Your task to perform on an android device: toggle translation in the chrome app Image 0: 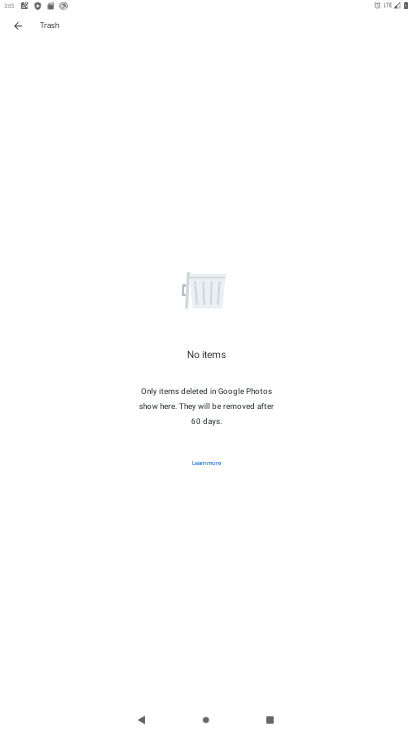
Step 0: drag from (192, 593) to (249, 145)
Your task to perform on an android device: toggle translation in the chrome app Image 1: 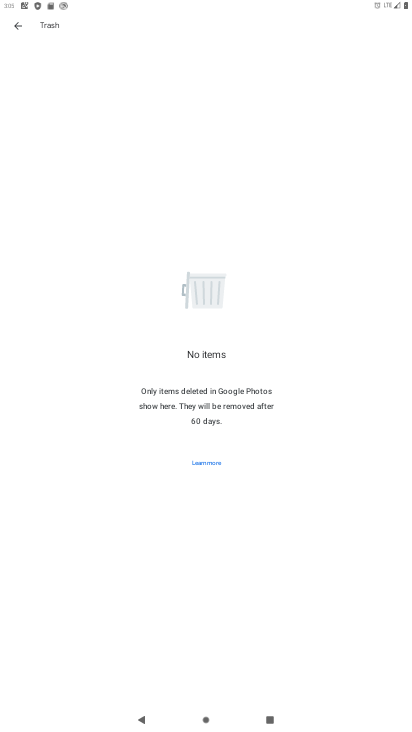
Step 1: drag from (125, 592) to (193, 281)
Your task to perform on an android device: toggle translation in the chrome app Image 2: 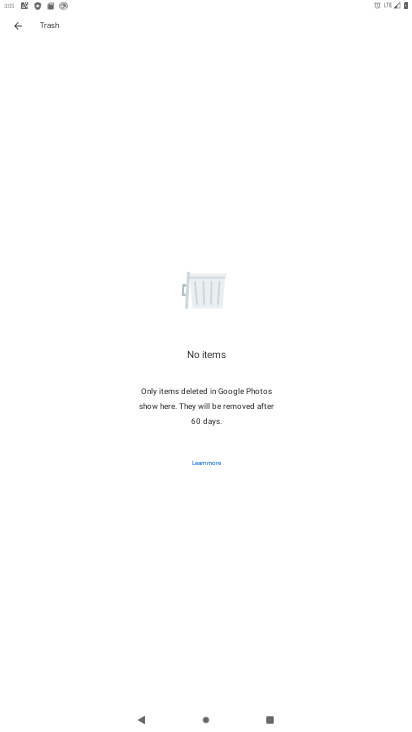
Step 2: drag from (208, 565) to (231, 317)
Your task to perform on an android device: toggle translation in the chrome app Image 3: 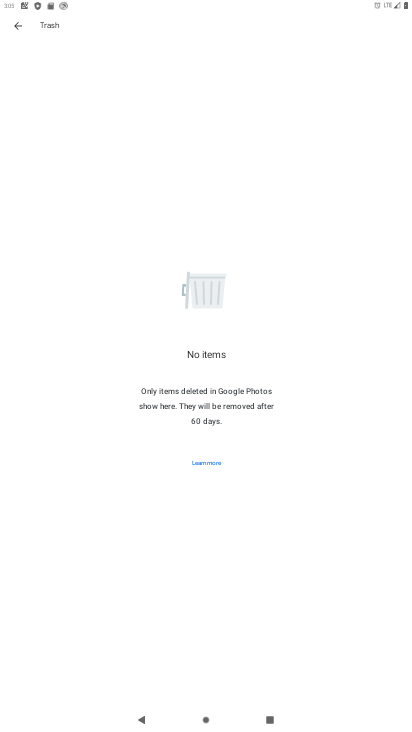
Step 3: drag from (231, 389) to (234, 267)
Your task to perform on an android device: toggle translation in the chrome app Image 4: 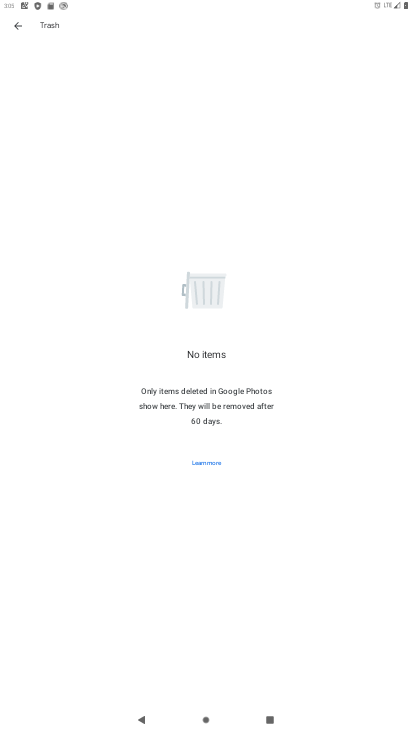
Step 4: drag from (215, 590) to (181, 341)
Your task to perform on an android device: toggle translation in the chrome app Image 5: 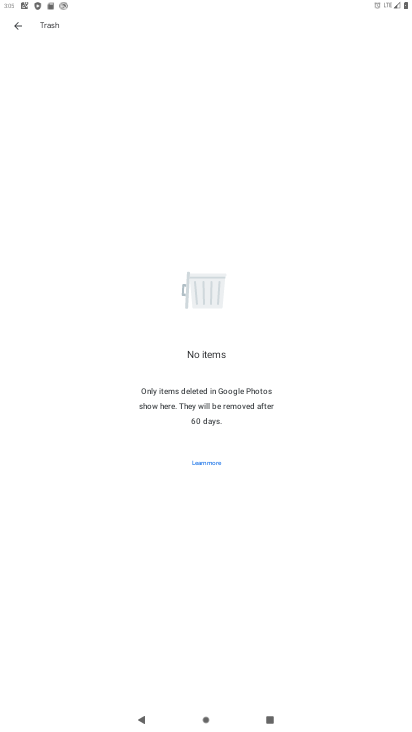
Step 5: drag from (250, 559) to (301, 386)
Your task to perform on an android device: toggle translation in the chrome app Image 6: 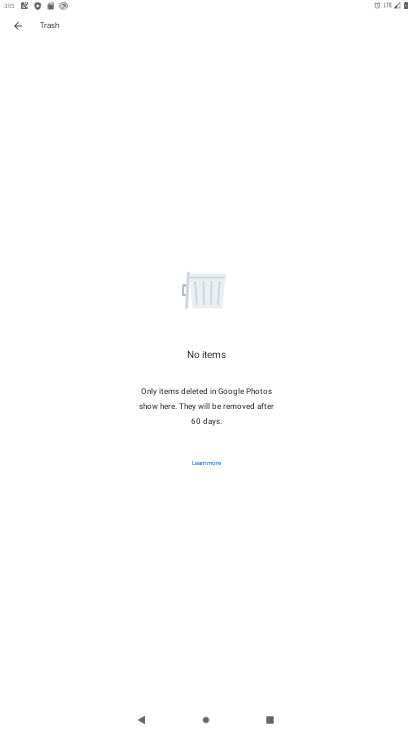
Step 6: press home button
Your task to perform on an android device: toggle translation in the chrome app Image 7: 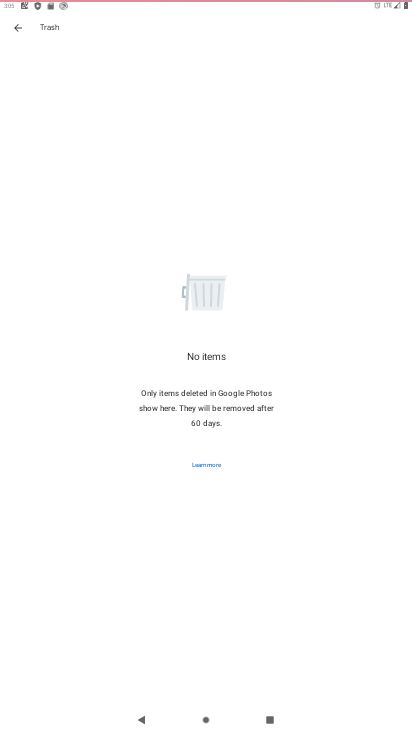
Step 7: drag from (213, 548) to (220, 148)
Your task to perform on an android device: toggle translation in the chrome app Image 8: 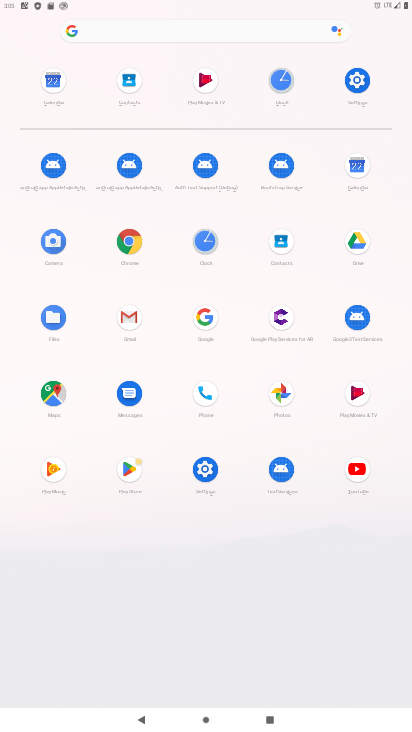
Step 8: drag from (246, 429) to (235, 203)
Your task to perform on an android device: toggle translation in the chrome app Image 9: 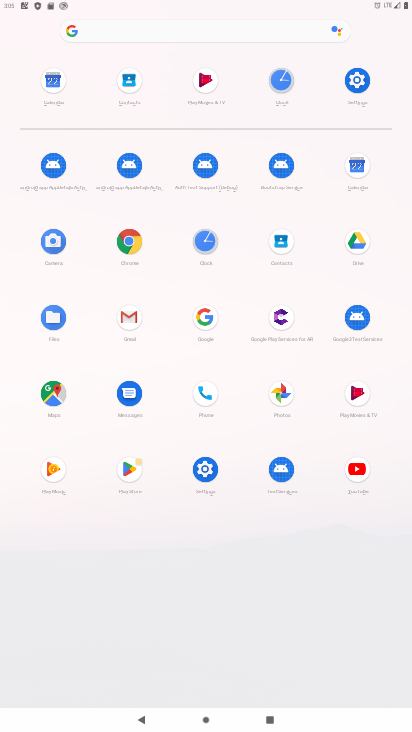
Step 9: click (125, 245)
Your task to perform on an android device: toggle translation in the chrome app Image 10: 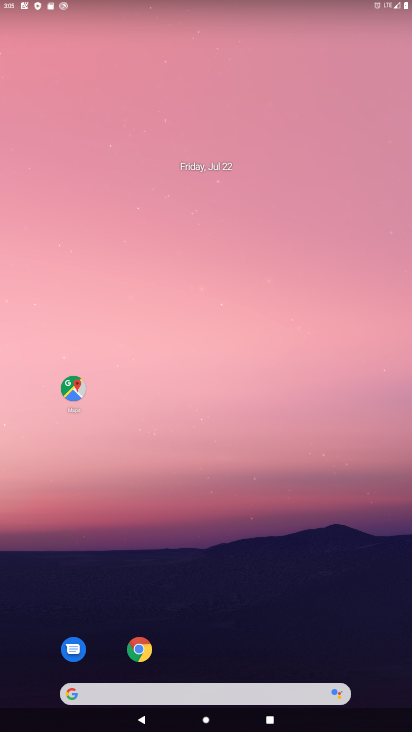
Step 10: drag from (197, 653) to (213, 321)
Your task to perform on an android device: toggle translation in the chrome app Image 11: 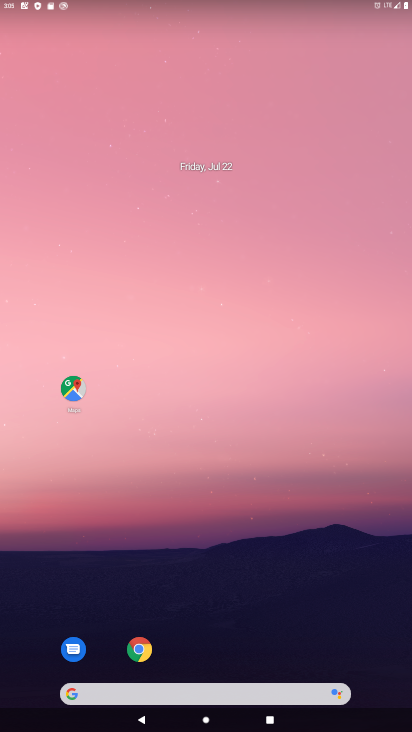
Step 11: drag from (201, 656) to (201, 92)
Your task to perform on an android device: toggle translation in the chrome app Image 12: 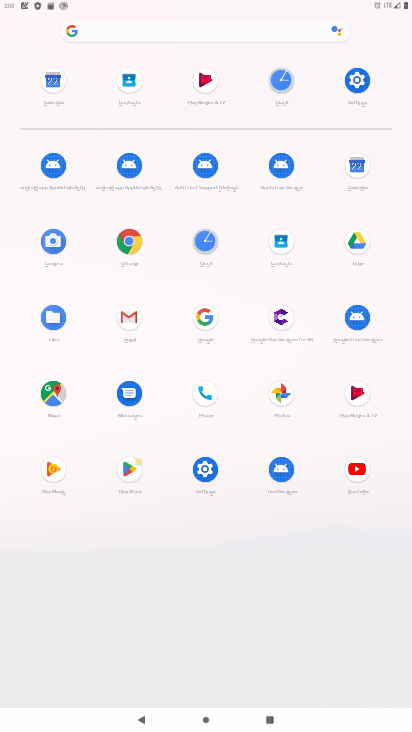
Step 12: click (129, 246)
Your task to perform on an android device: toggle translation in the chrome app Image 13: 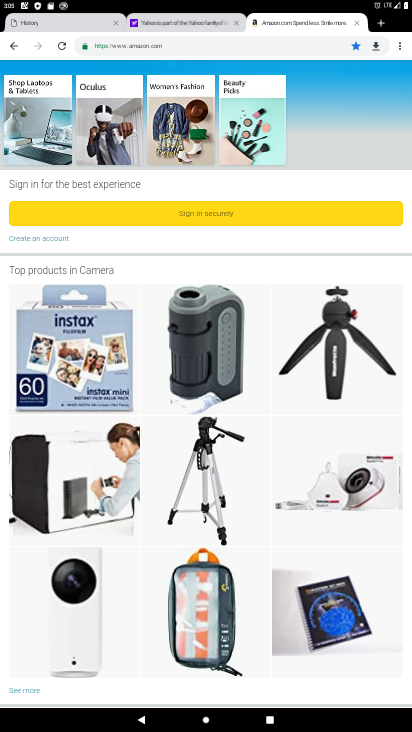
Step 13: drag from (395, 44) to (318, 301)
Your task to perform on an android device: toggle translation in the chrome app Image 14: 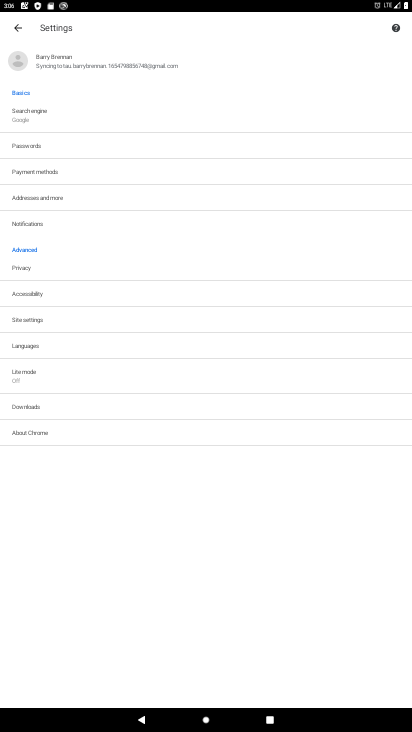
Step 14: click (81, 345)
Your task to perform on an android device: toggle translation in the chrome app Image 15: 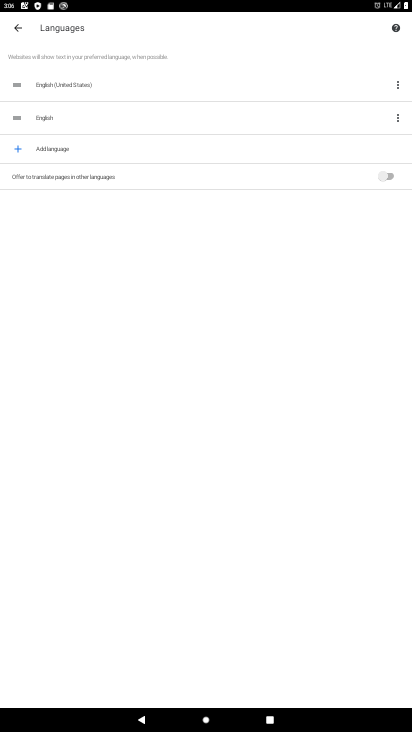
Step 15: click (331, 184)
Your task to perform on an android device: toggle translation in the chrome app Image 16: 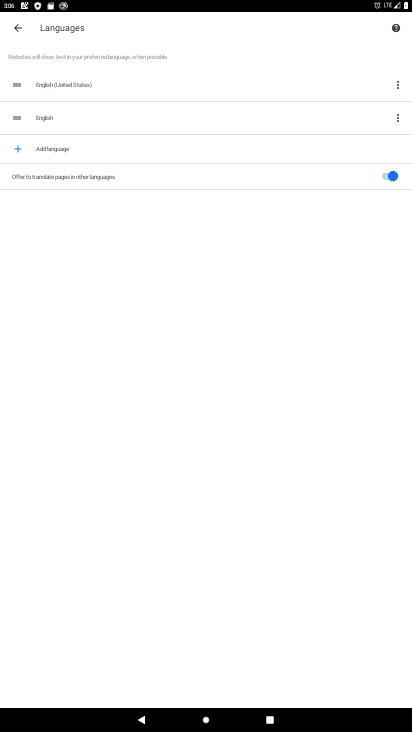
Step 16: task complete